Your task to perform on an android device: Is it going to rain today? Image 0: 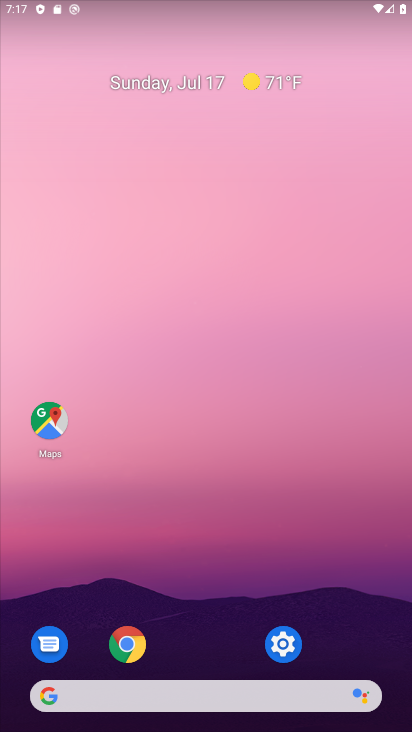
Step 0: drag from (220, 712) to (318, 97)
Your task to perform on an android device: Is it going to rain today? Image 1: 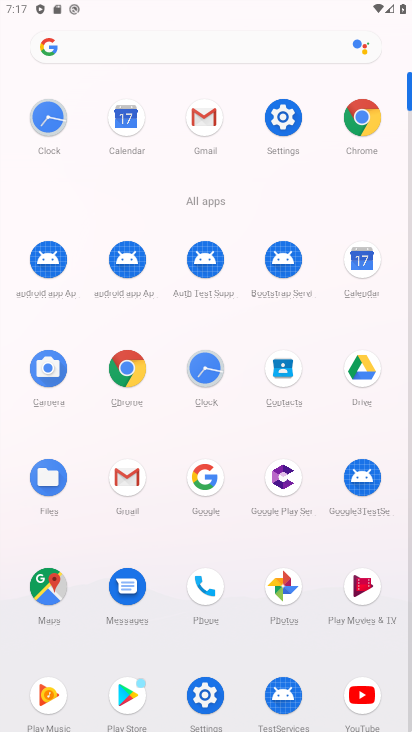
Step 1: click (96, 52)
Your task to perform on an android device: Is it going to rain today? Image 2: 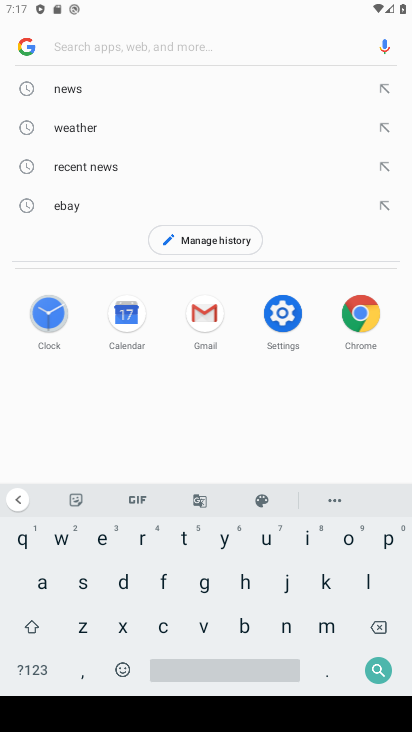
Step 2: click (136, 539)
Your task to perform on an android device: Is it going to rain today? Image 3: 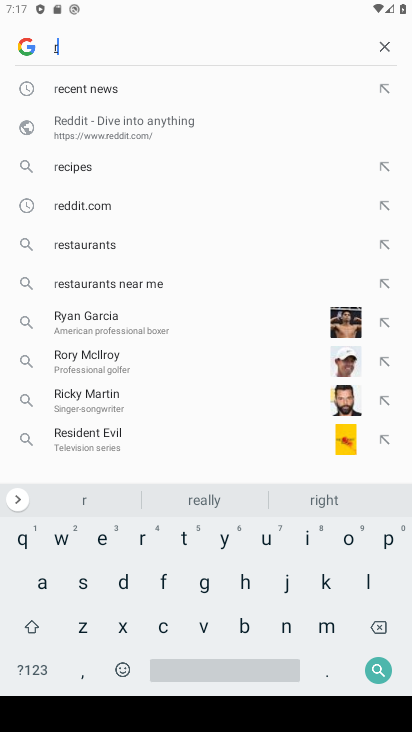
Step 3: click (47, 577)
Your task to perform on an android device: Is it going to rain today? Image 4: 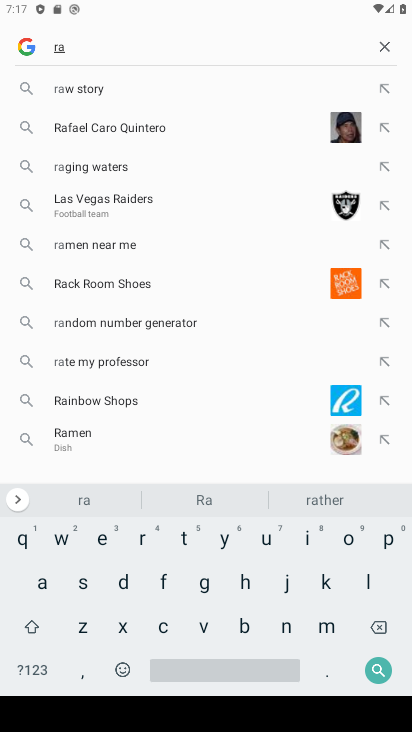
Step 4: click (303, 538)
Your task to perform on an android device: Is it going to rain today? Image 5: 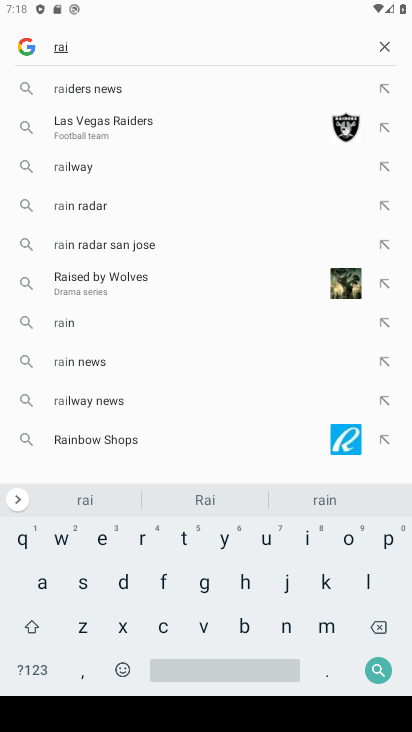
Step 5: click (287, 626)
Your task to perform on an android device: Is it going to rain today? Image 6: 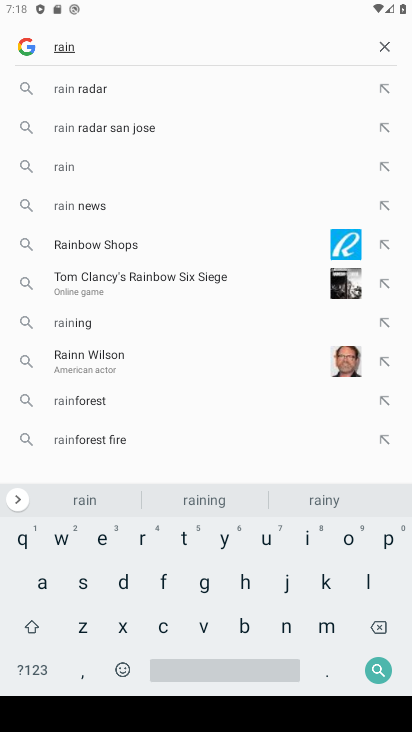
Step 6: click (77, 500)
Your task to perform on an android device: Is it going to rain today? Image 7: 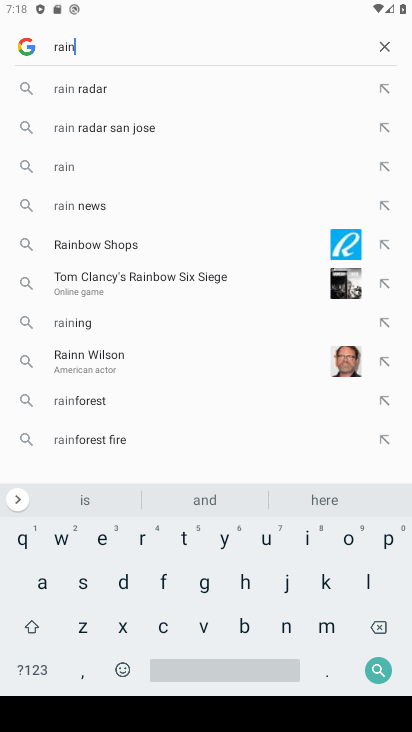
Step 7: click (181, 545)
Your task to perform on an android device: Is it going to rain today? Image 8: 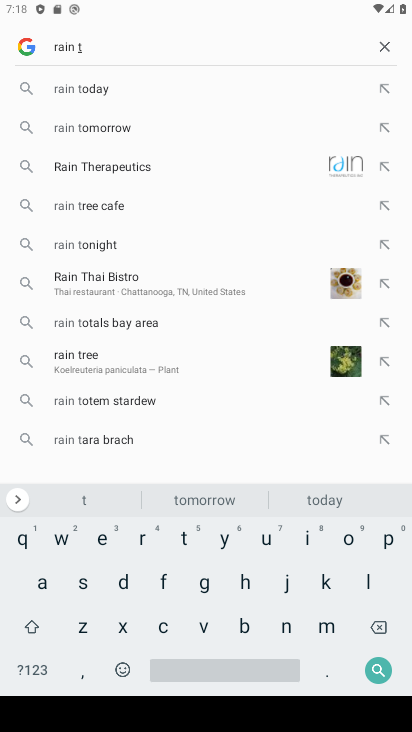
Step 8: click (106, 92)
Your task to perform on an android device: Is it going to rain today? Image 9: 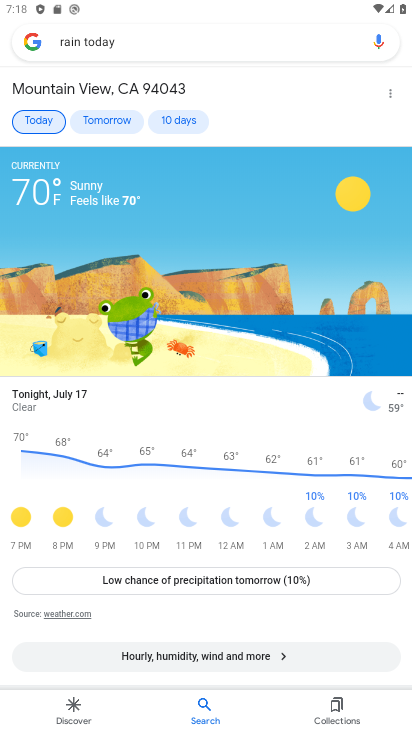
Step 9: task complete